Your task to perform on an android device: Open Chrome and go to the settings page Image 0: 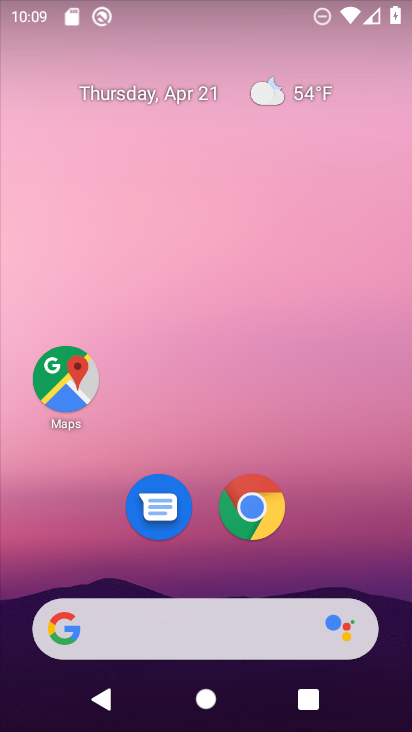
Step 0: click (268, 504)
Your task to perform on an android device: Open Chrome and go to the settings page Image 1: 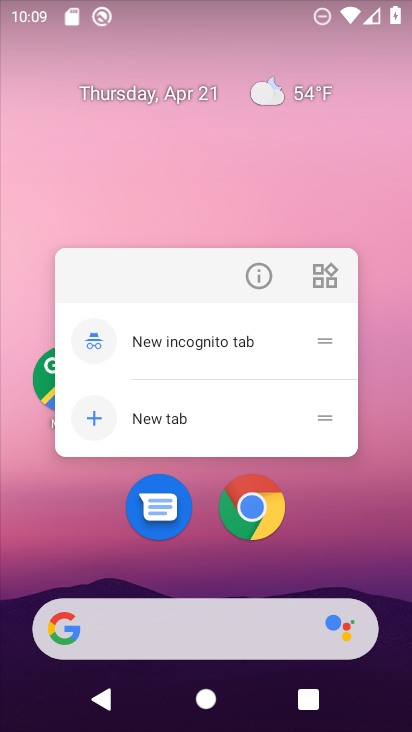
Step 1: click (256, 519)
Your task to perform on an android device: Open Chrome and go to the settings page Image 2: 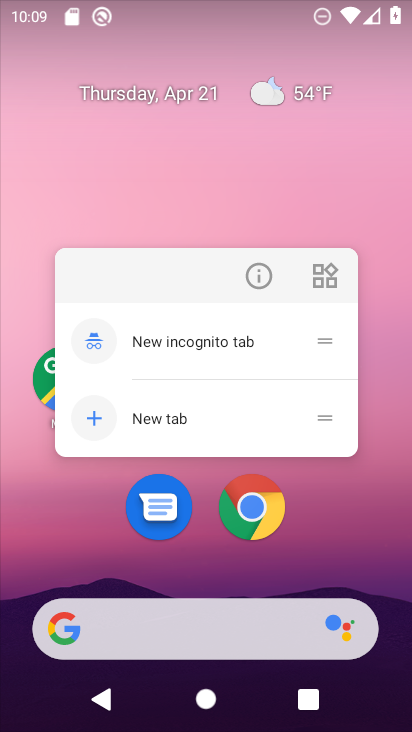
Step 2: click (256, 519)
Your task to perform on an android device: Open Chrome and go to the settings page Image 3: 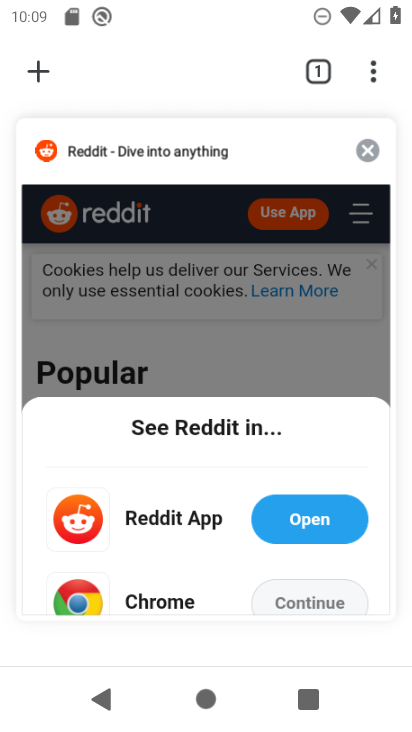
Step 3: click (373, 69)
Your task to perform on an android device: Open Chrome and go to the settings page Image 4: 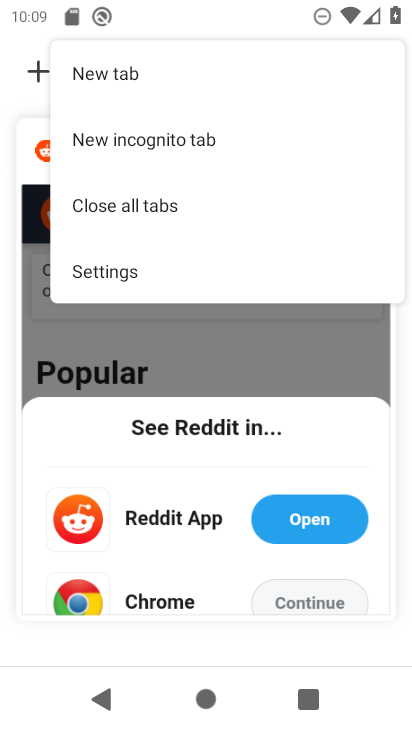
Step 4: click (146, 269)
Your task to perform on an android device: Open Chrome and go to the settings page Image 5: 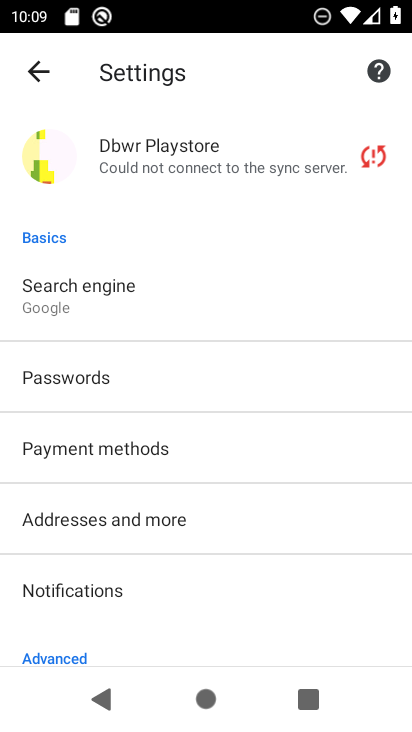
Step 5: task complete